Your task to perform on an android device: find snoozed emails in the gmail app Image 0: 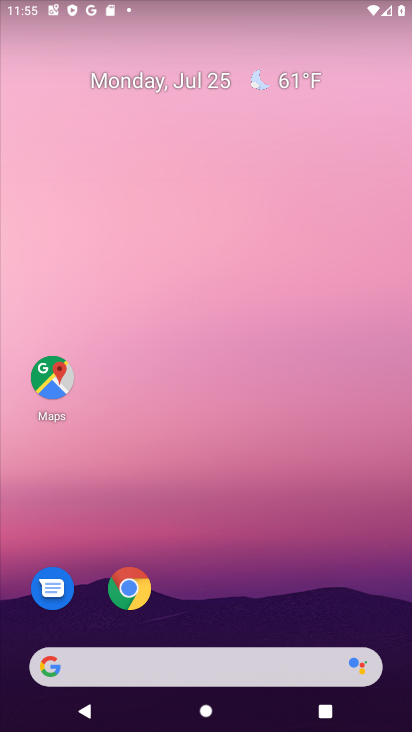
Step 0: press home button
Your task to perform on an android device: find snoozed emails in the gmail app Image 1: 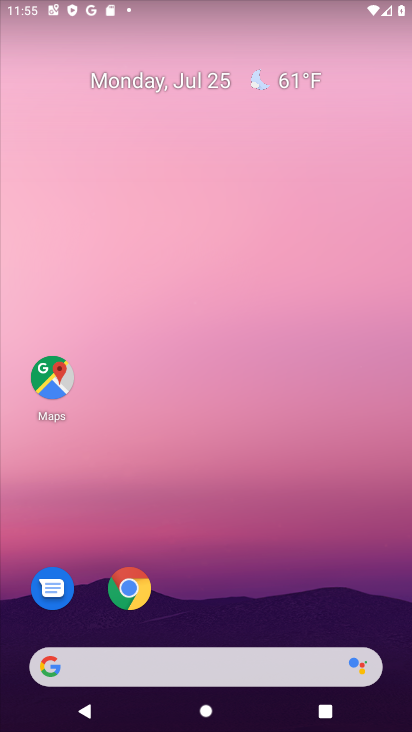
Step 1: drag from (217, 619) to (230, 25)
Your task to perform on an android device: find snoozed emails in the gmail app Image 2: 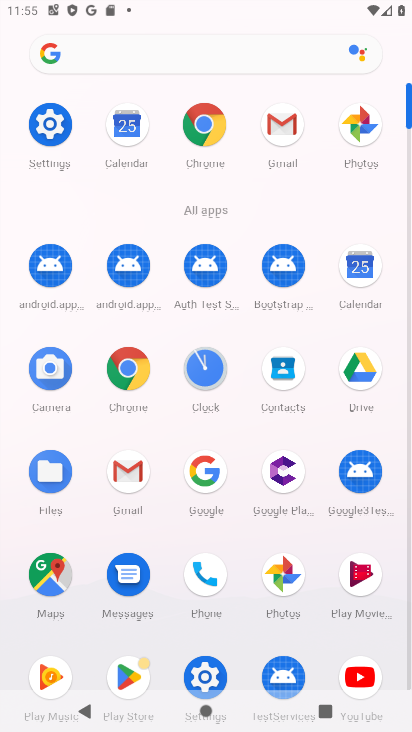
Step 2: click (128, 462)
Your task to perform on an android device: find snoozed emails in the gmail app Image 3: 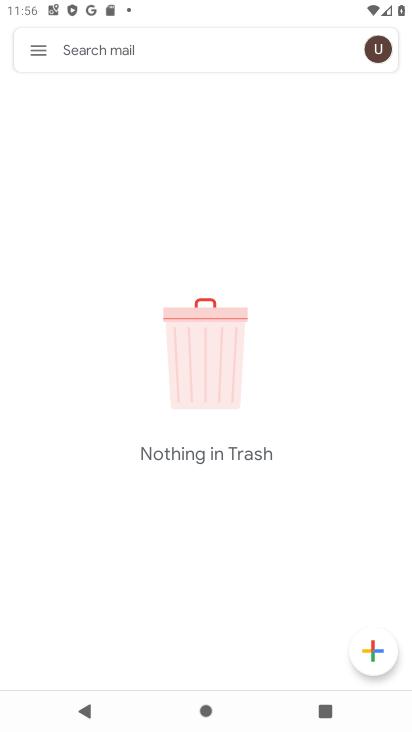
Step 3: click (31, 48)
Your task to perform on an android device: find snoozed emails in the gmail app Image 4: 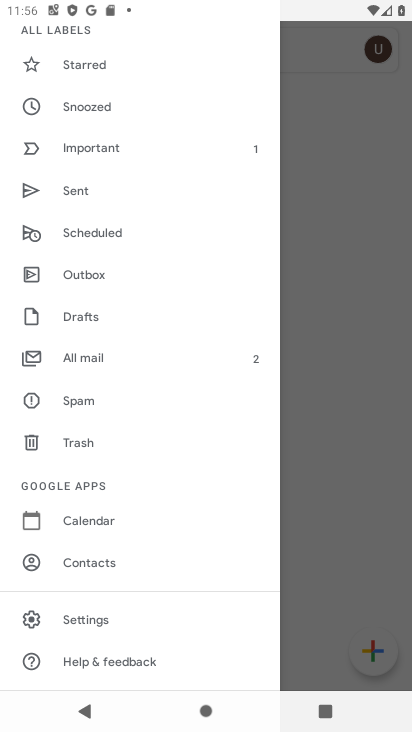
Step 4: click (97, 104)
Your task to perform on an android device: find snoozed emails in the gmail app Image 5: 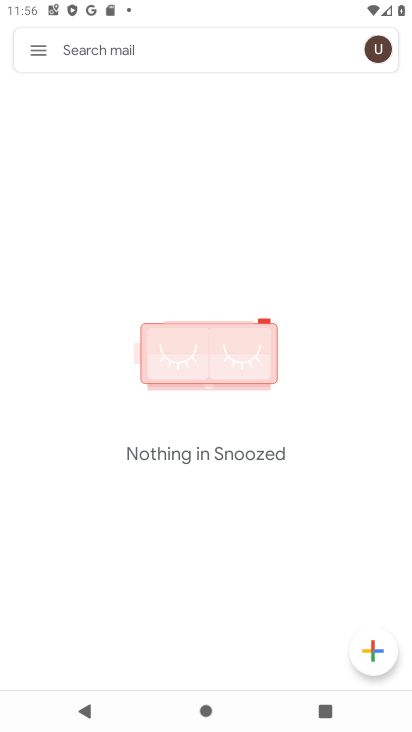
Step 5: task complete